Your task to perform on an android device: Go to battery settings Image 0: 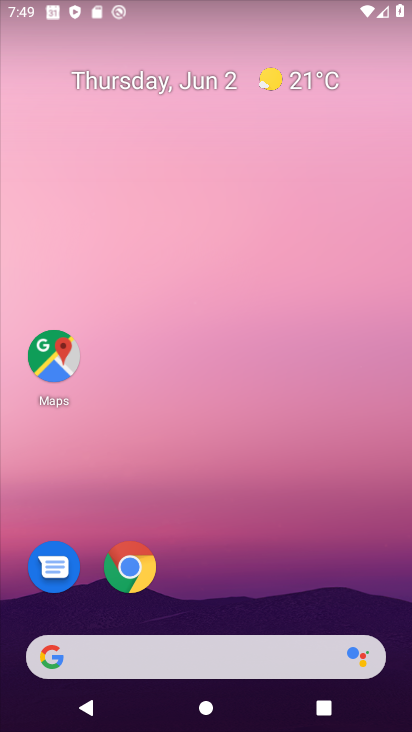
Step 0: drag from (398, 621) to (318, 156)
Your task to perform on an android device: Go to battery settings Image 1: 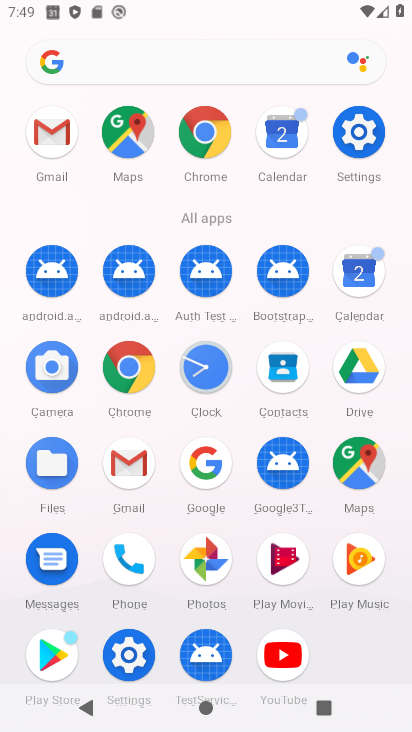
Step 1: click (127, 653)
Your task to perform on an android device: Go to battery settings Image 2: 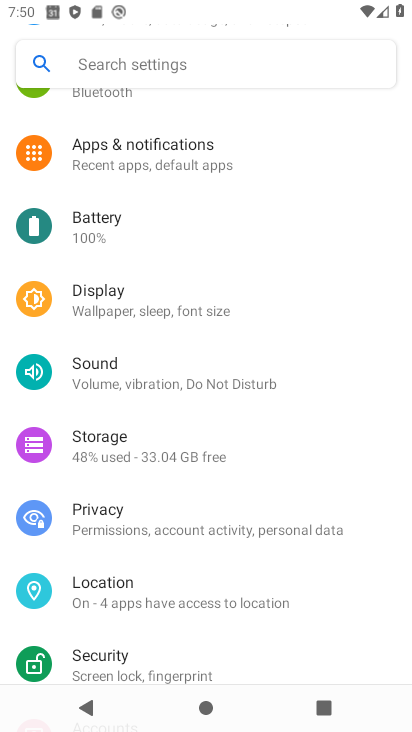
Step 2: click (87, 212)
Your task to perform on an android device: Go to battery settings Image 3: 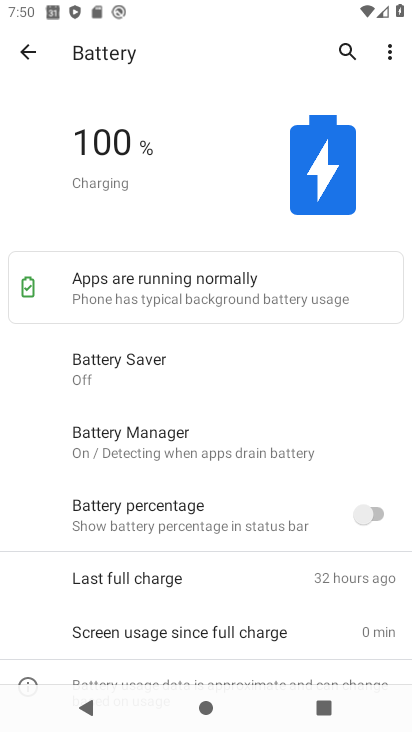
Step 3: task complete